Your task to perform on an android device: Do I have any events this weekend? Image 0: 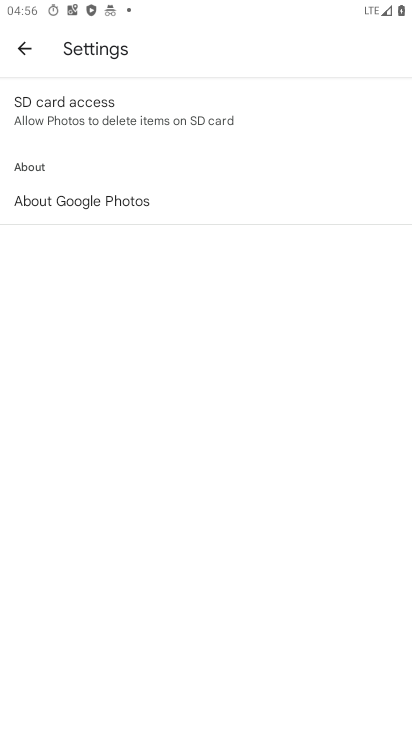
Step 0: press home button
Your task to perform on an android device: Do I have any events this weekend? Image 1: 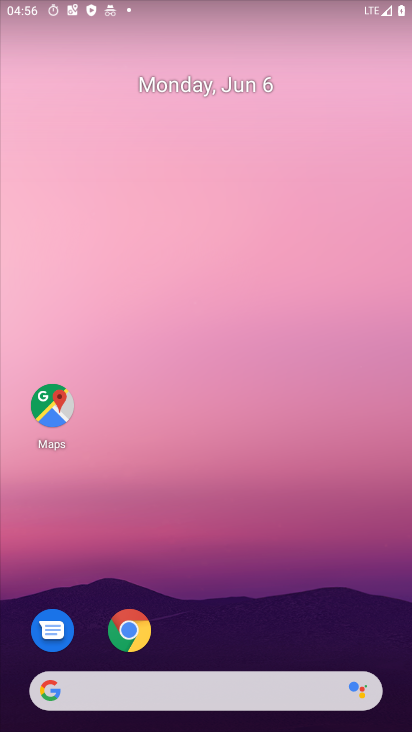
Step 1: drag from (265, 586) to (289, 40)
Your task to perform on an android device: Do I have any events this weekend? Image 2: 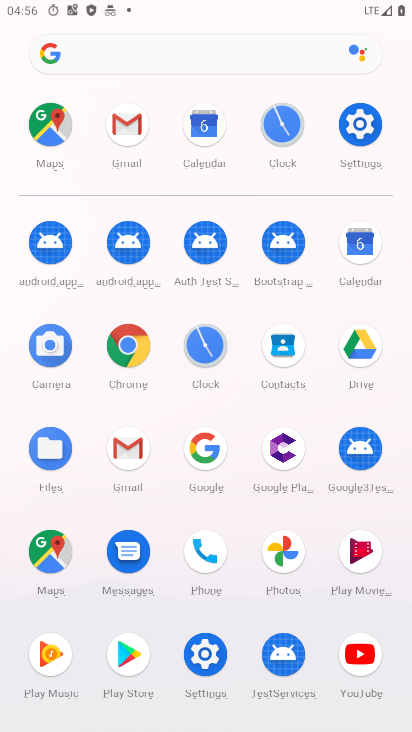
Step 2: click (209, 128)
Your task to perform on an android device: Do I have any events this weekend? Image 3: 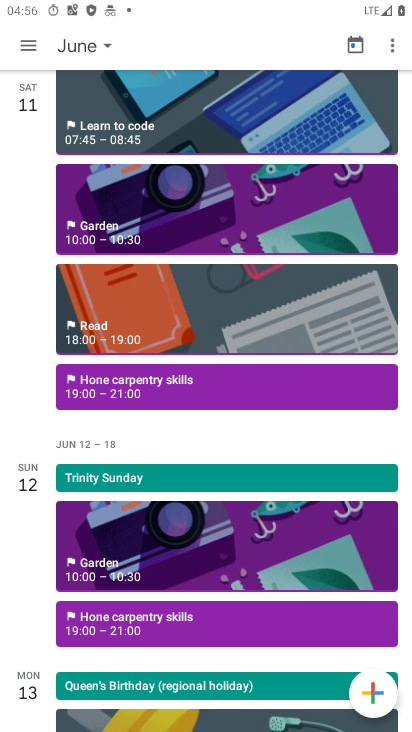
Step 3: task complete